Your task to perform on an android device: Go to accessibility settings Image 0: 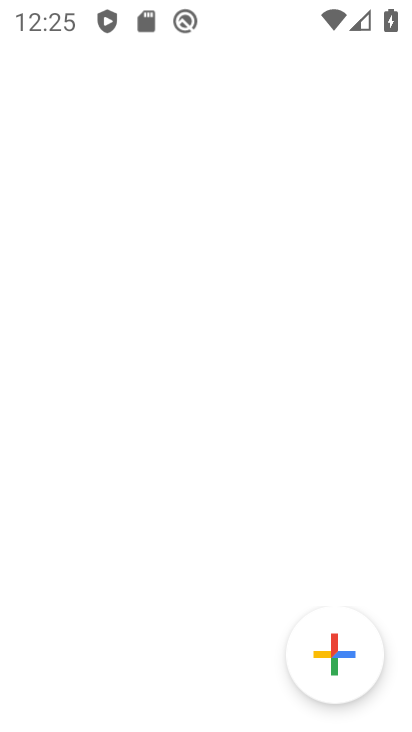
Step 0: drag from (233, 16) to (280, 121)
Your task to perform on an android device: Go to accessibility settings Image 1: 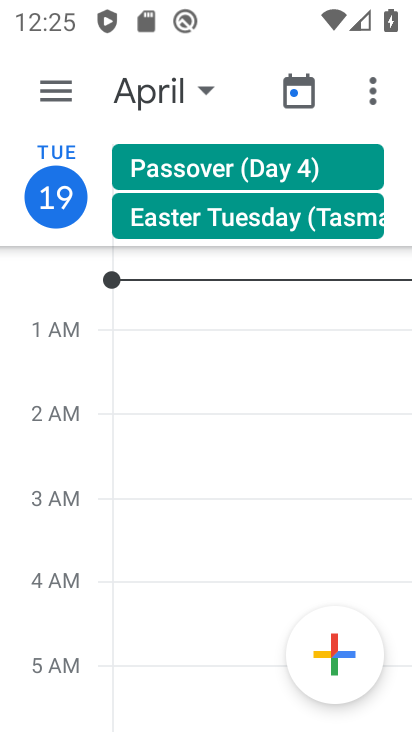
Step 1: press home button
Your task to perform on an android device: Go to accessibility settings Image 2: 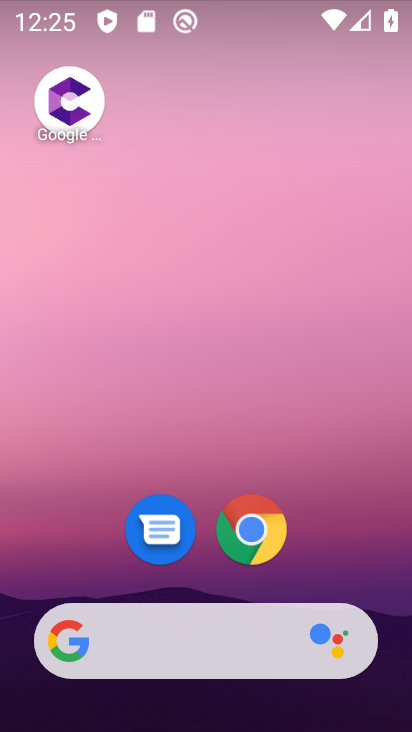
Step 2: drag from (345, 473) to (252, 99)
Your task to perform on an android device: Go to accessibility settings Image 3: 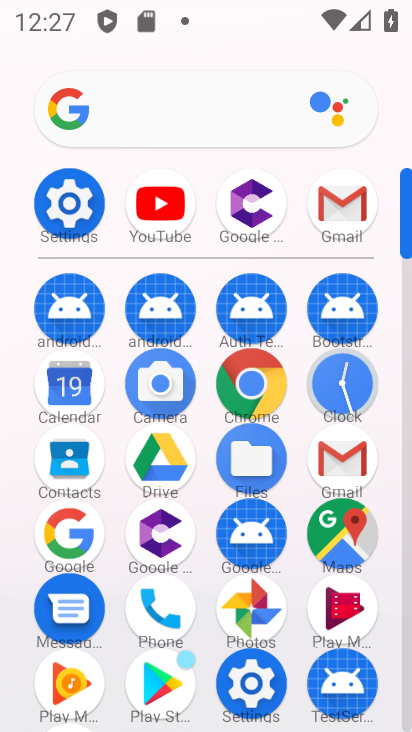
Step 3: click (84, 179)
Your task to perform on an android device: Go to accessibility settings Image 4: 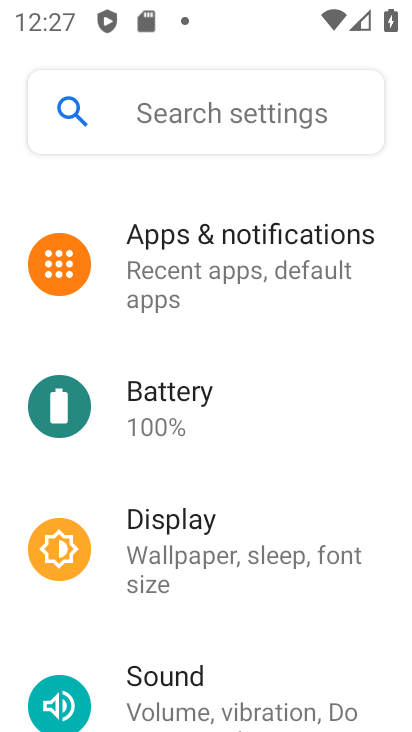
Step 4: drag from (144, 637) to (280, 18)
Your task to perform on an android device: Go to accessibility settings Image 5: 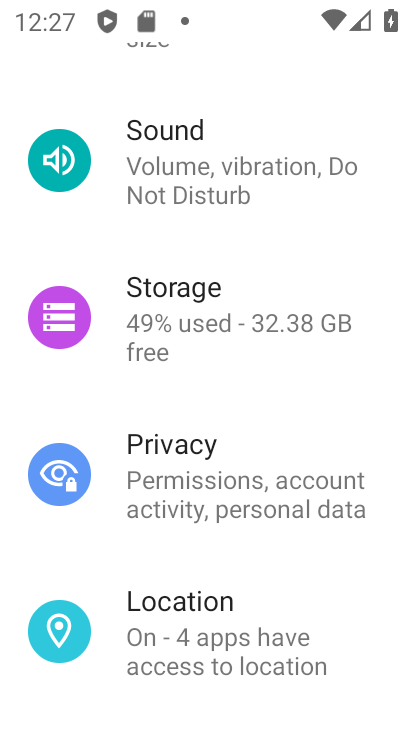
Step 5: drag from (194, 630) to (181, 9)
Your task to perform on an android device: Go to accessibility settings Image 6: 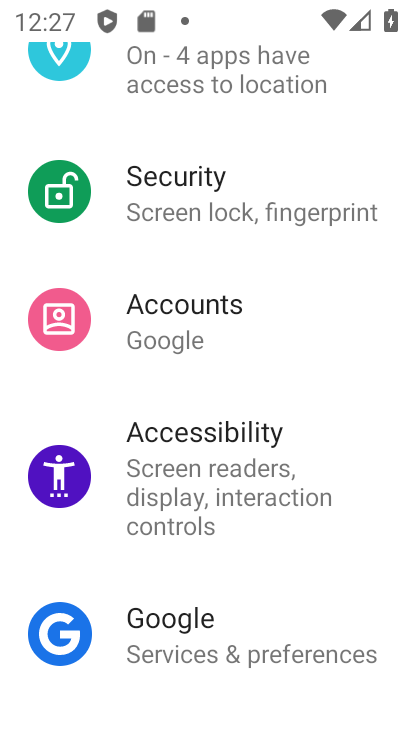
Step 6: click (275, 431)
Your task to perform on an android device: Go to accessibility settings Image 7: 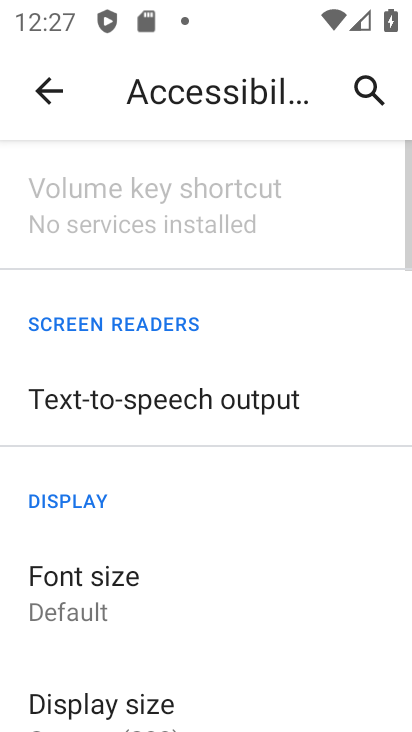
Step 7: task complete